Your task to perform on an android device: Go to Yahoo.com Image 0: 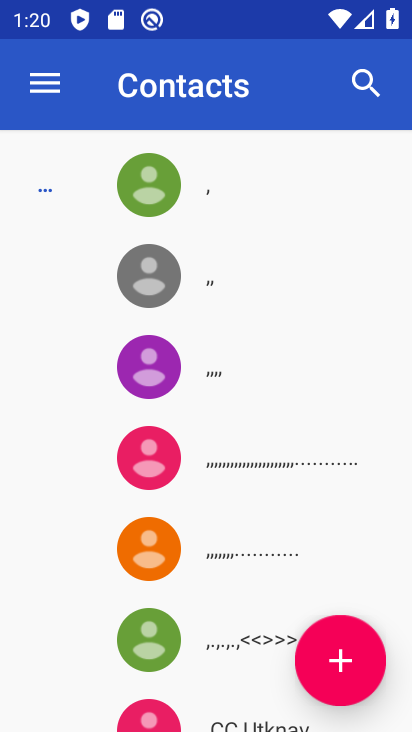
Step 0: press home button
Your task to perform on an android device: Go to Yahoo.com Image 1: 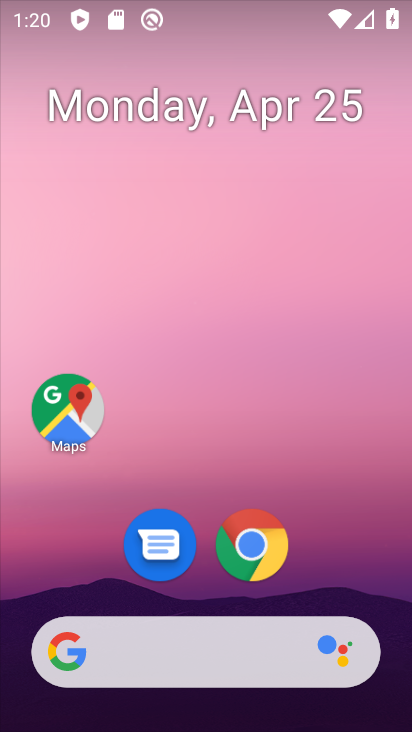
Step 1: click (261, 541)
Your task to perform on an android device: Go to Yahoo.com Image 2: 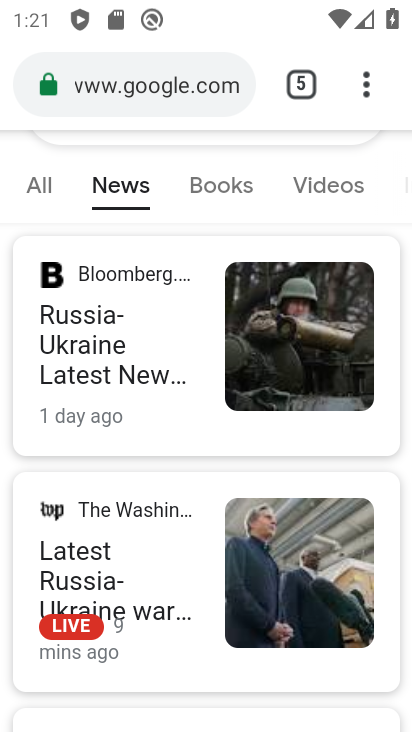
Step 2: click (306, 90)
Your task to perform on an android device: Go to Yahoo.com Image 3: 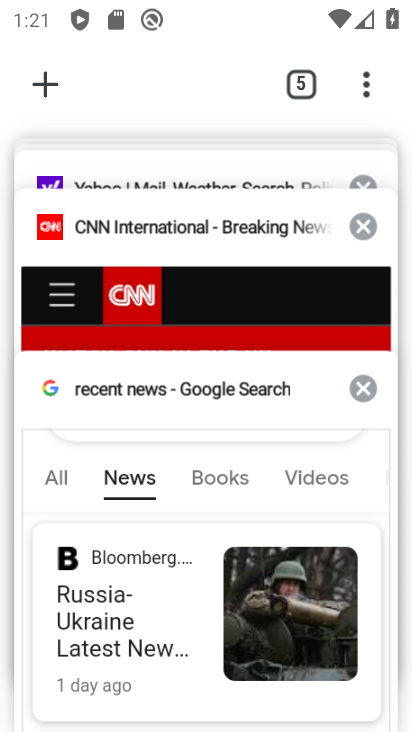
Step 3: drag from (174, 352) to (159, 519)
Your task to perform on an android device: Go to Yahoo.com Image 4: 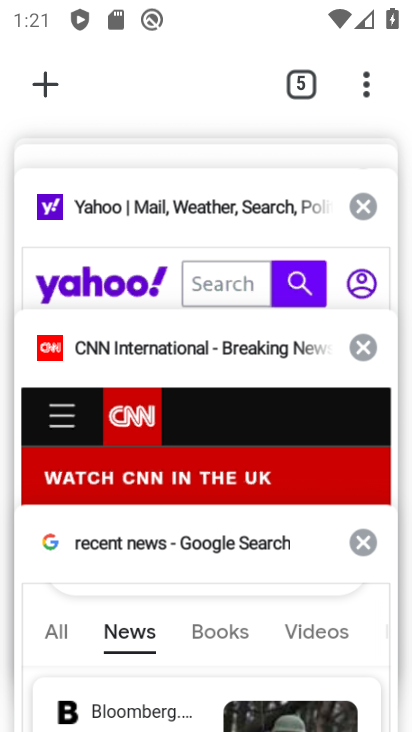
Step 4: click (130, 262)
Your task to perform on an android device: Go to Yahoo.com Image 5: 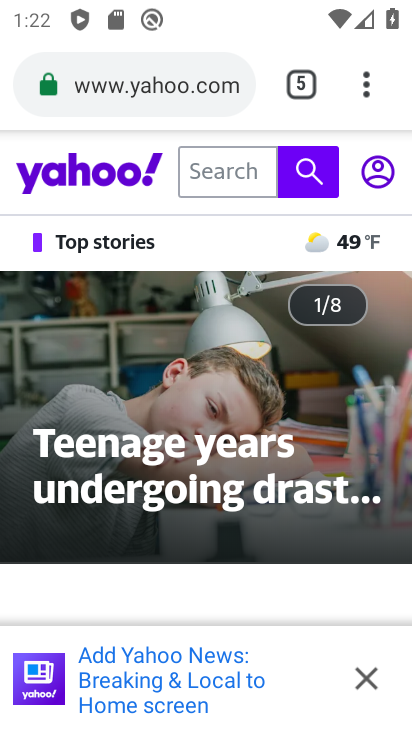
Step 5: task complete